Your task to perform on an android device: Go to settings Image 0: 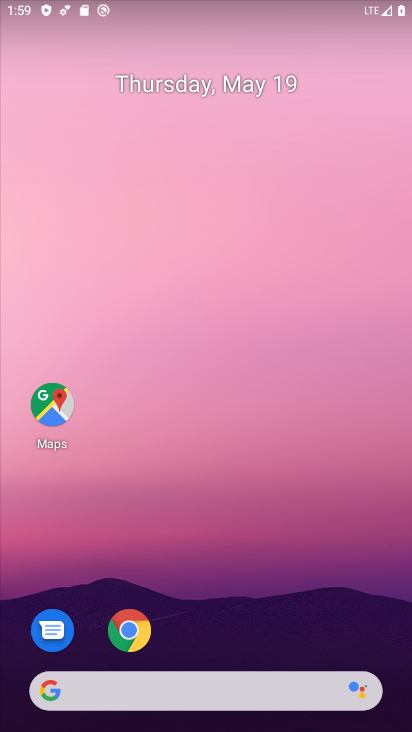
Step 0: click (216, 129)
Your task to perform on an android device: Go to settings Image 1: 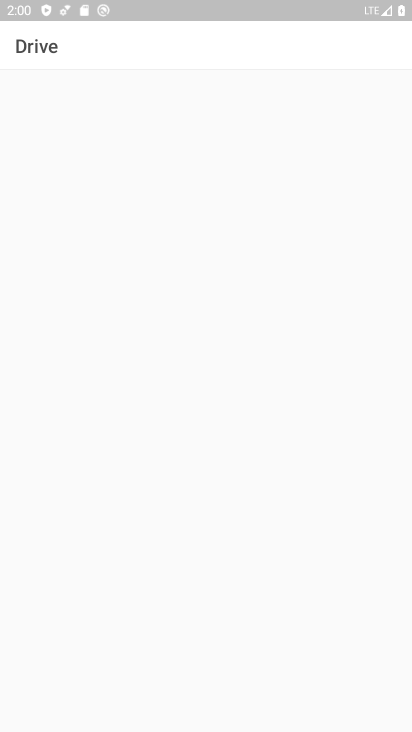
Step 1: press back button
Your task to perform on an android device: Go to settings Image 2: 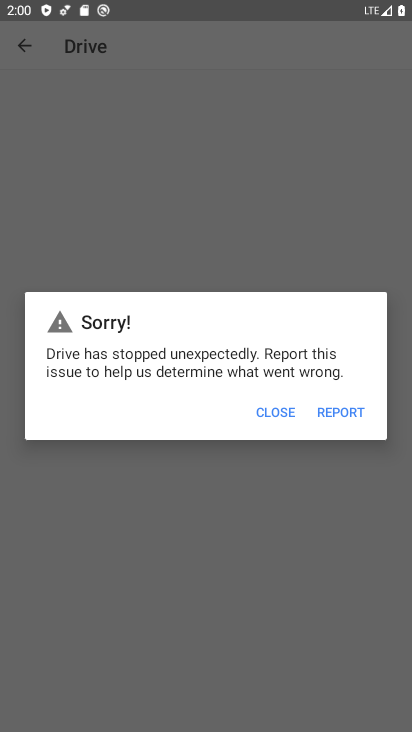
Step 2: press back button
Your task to perform on an android device: Go to settings Image 3: 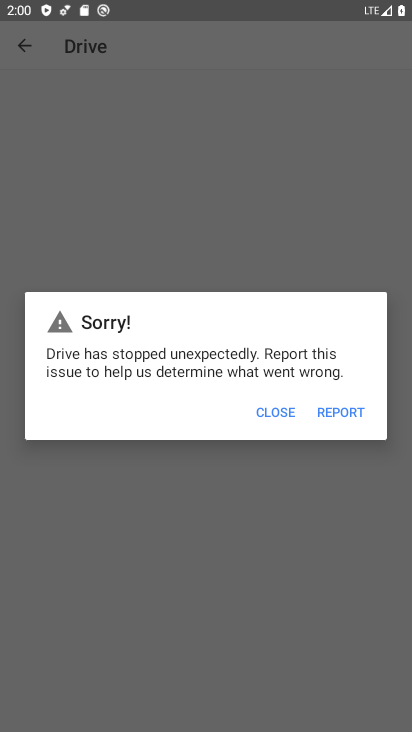
Step 3: press back button
Your task to perform on an android device: Go to settings Image 4: 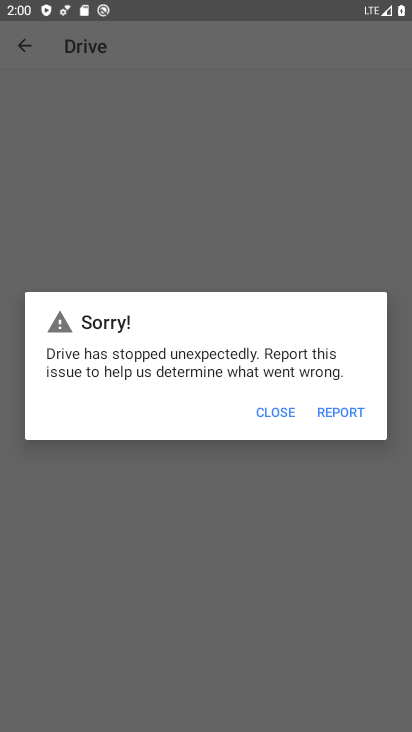
Step 4: press home button
Your task to perform on an android device: Go to settings Image 5: 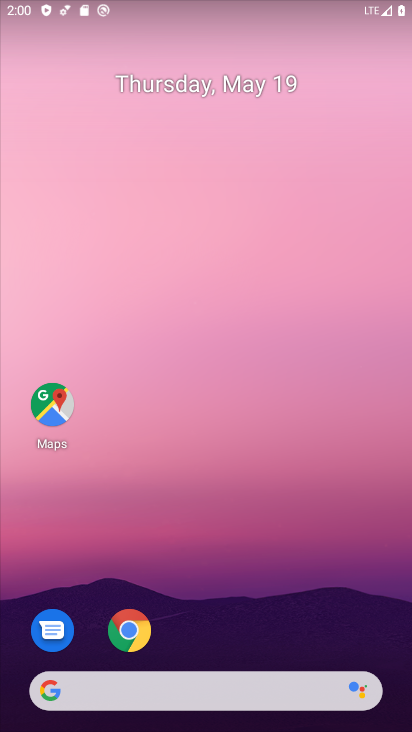
Step 5: drag from (213, 390) to (204, 18)
Your task to perform on an android device: Go to settings Image 6: 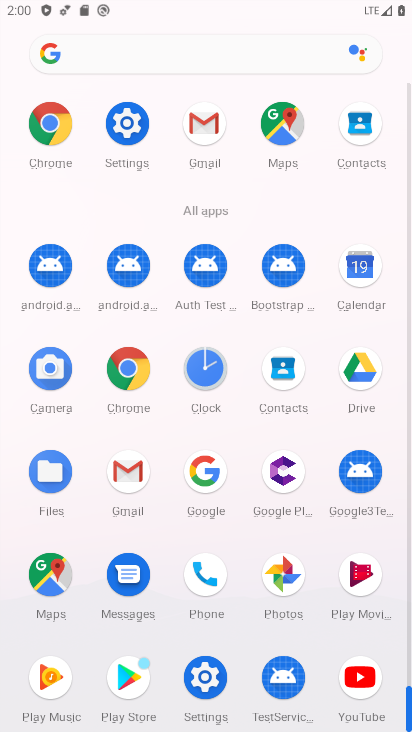
Step 6: click (205, 677)
Your task to perform on an android device: Go to settings Image 7: 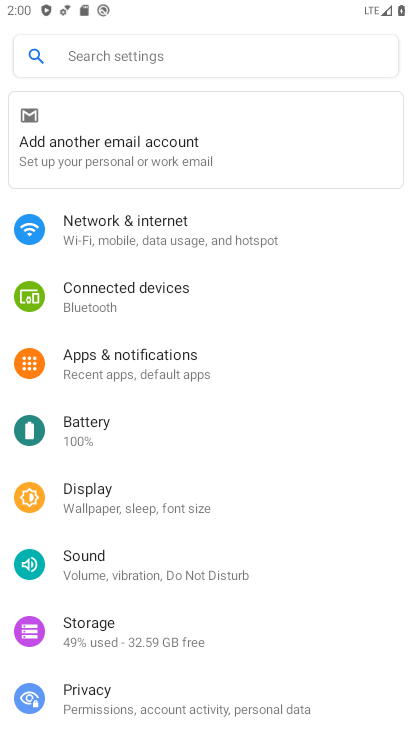
Step 7: task complete